Your task to perform on an android device: Go to internet settings Image 0: 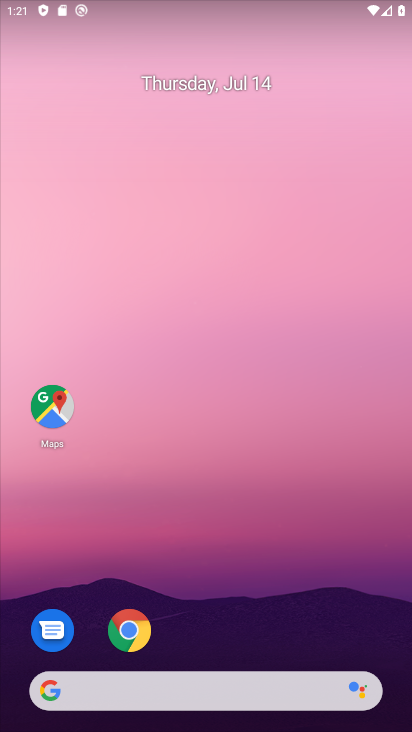
Step 0: drag from (257, 544) to (337, 1)
Your task to perform on an android device: Go to internet settings Image 1: 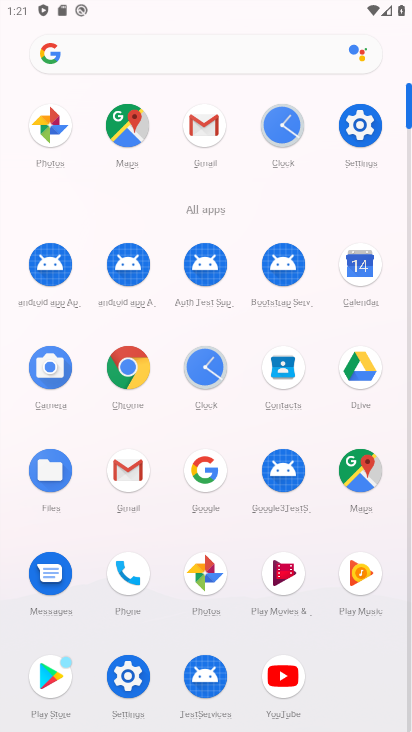
Step 1: click (370, 125)
Your task to perform on an android device: Go to internet settings Image 2: 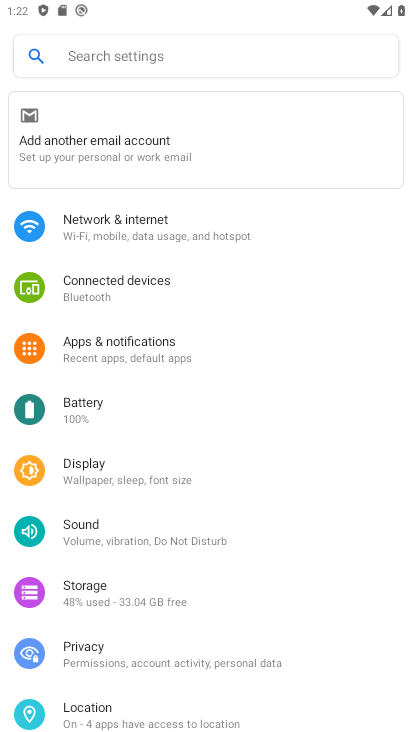
Step 2: click (177, 225)
Your task to perform on an android device: Go to internet settings Image 3: 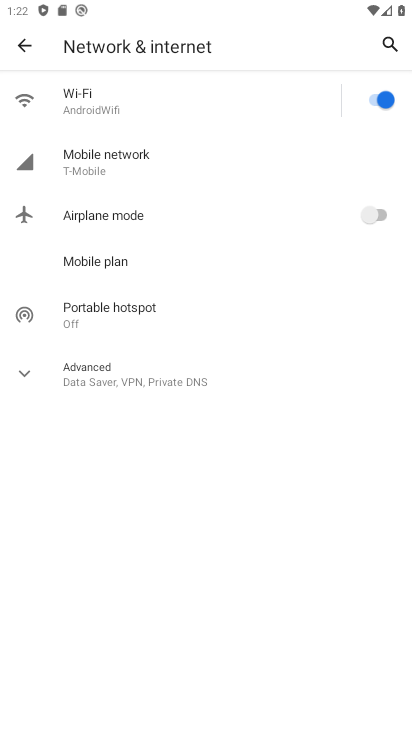
Step 3: task complete